Your task to perform on an android device: create a new album in the google photos Image 0: 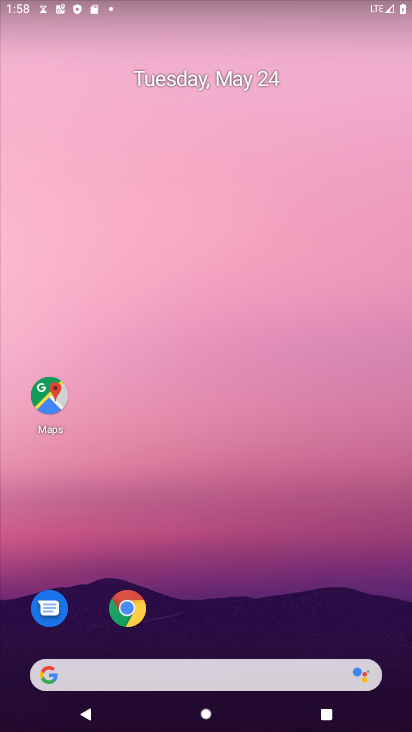
Step 0: drag from (222, 636) to (199, 240)
Your task to perform on an android device: create a new album in the google photos Image 1: 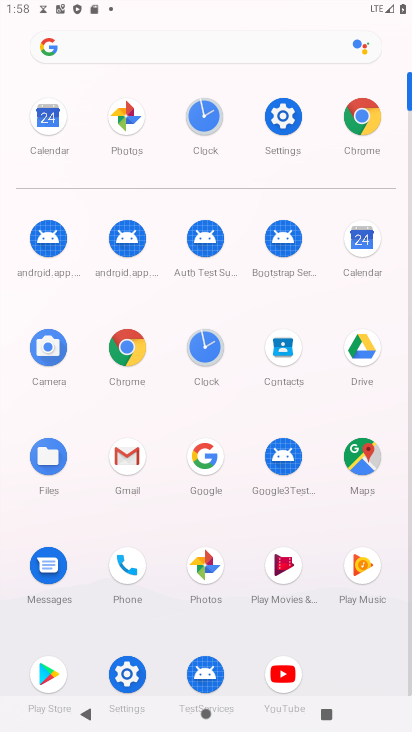
Step 1: click (135, 126)
Your task to perform on an android device: create a new album in the google photos Image 2: 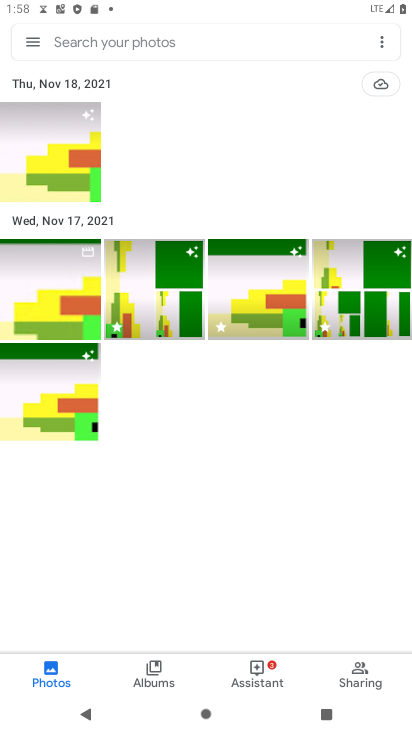
Step 2: click (268, 674)
Your task to perform on an android device: create a new album in the google photos Image 3: 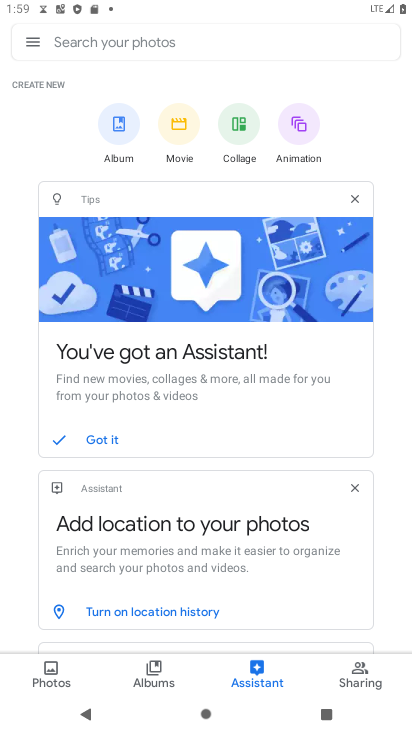
Step 3: click (117, 131)
Your task to perform on an android device: create a new album in the google photos Image 4: 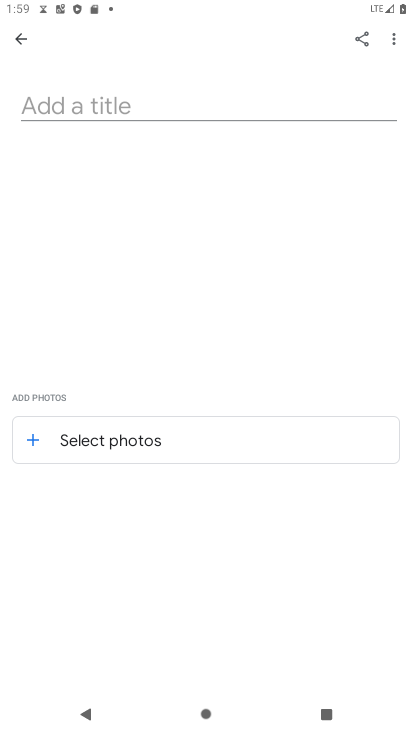
Step 4: click (127, 102)
Your task to perform on an android device: create a new album in the google photos Image 5: 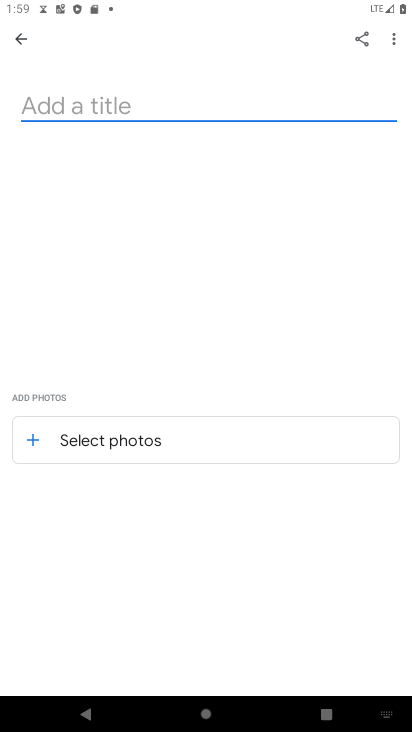
Step 5: type "bkhbkhb"
Your task to perform on an android device: create a new album in the google photos Image 6: 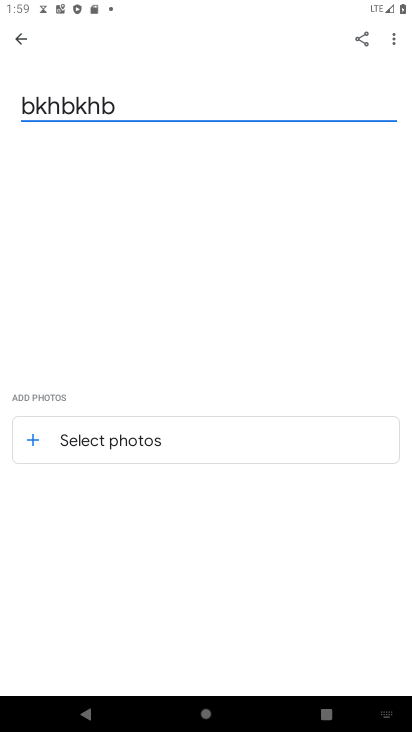
Step 6: click (234, 449)
Your task to perform on an android device: create a new album in the google photos Image 7: 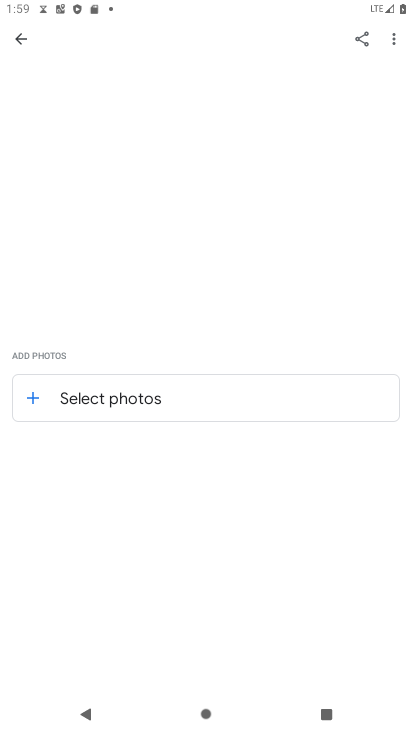
Step 7: click (162, 409)
Your task to perform on an android device: create a new album in the google photos Image 8: 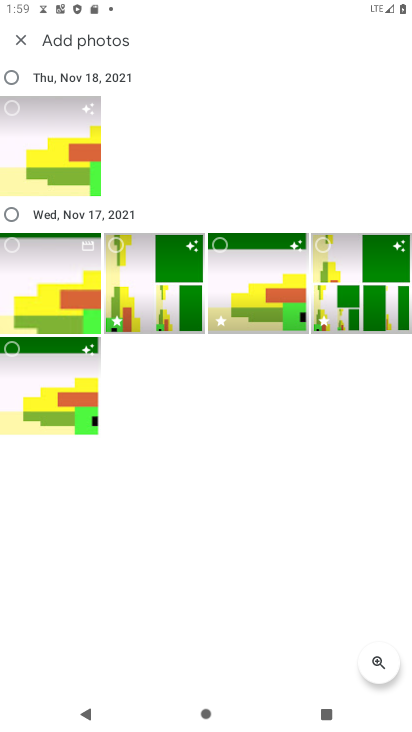
Step 8: click (165, 317)
Your task to perform on an android device: create a new album in the google photos Image 9: 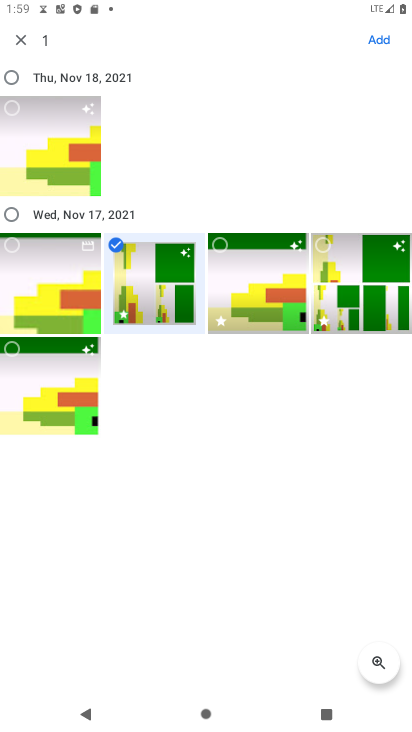
Step 9: click (382, 50)
Your task to perform on an android device: create a new album in the google photos Image 10: 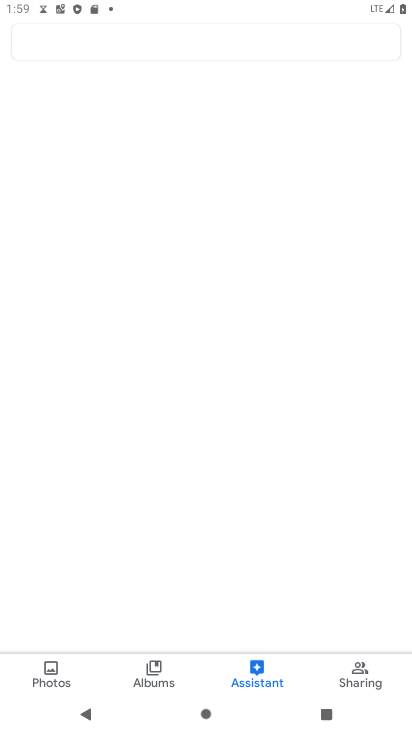
Step 10: task complete